Your task to perform on an android device: Clear the cart on amazon. Search for acer nitro on amazon, select the first entry, add it to the cart, then select checkout. Image 0: 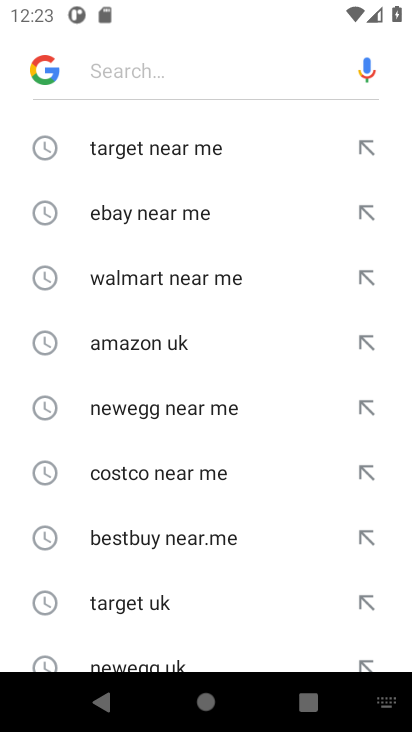
Step 0: press home button
Your task to perform on an android device: Clear the cart on amazon. Search for acer nitro on amazon, select the first entry, add it to the cart, then select checkout. Image 1: 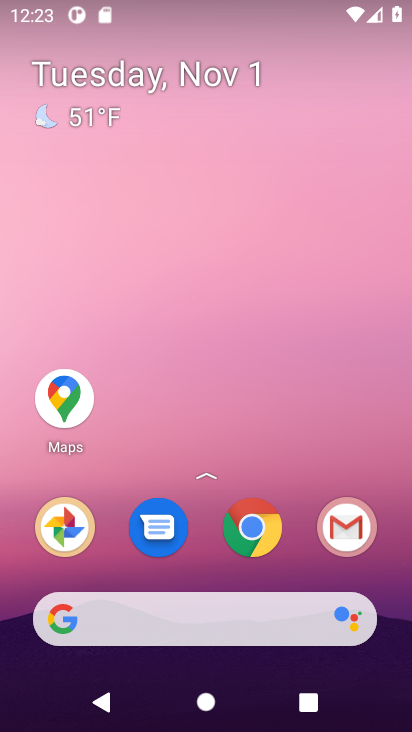
Step 1: click (250, 527)
Your task to perform on an android device: Clear the cart on amazon. Search for acer nitro on amazon, select the first entry, add it to the cart, then select checkout. Image 2: 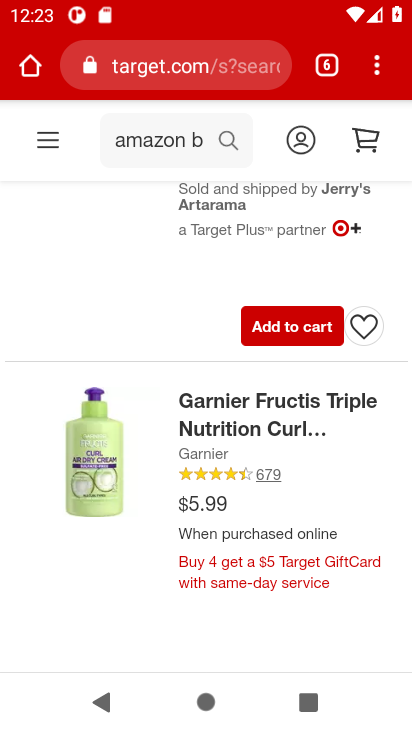
Step 2: click (180, 41)
Your task to perform on an android device: Clear the cart on amazon. Search for acer nitro on amazon, select the first entry, add it to the cart, then select checkout. Image 3: 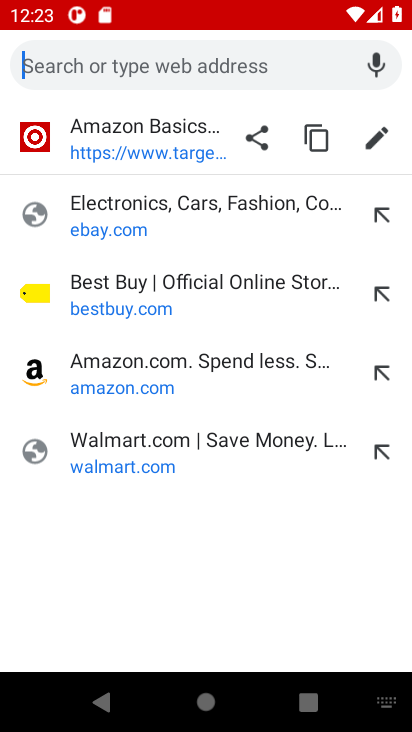
Step 3: type "amazon"
Your task to perform on an android device: Clear the cart on amazon. Search for acer nitro on amazon, select the first entry, add it to the cart, then select checkout. Image 4: 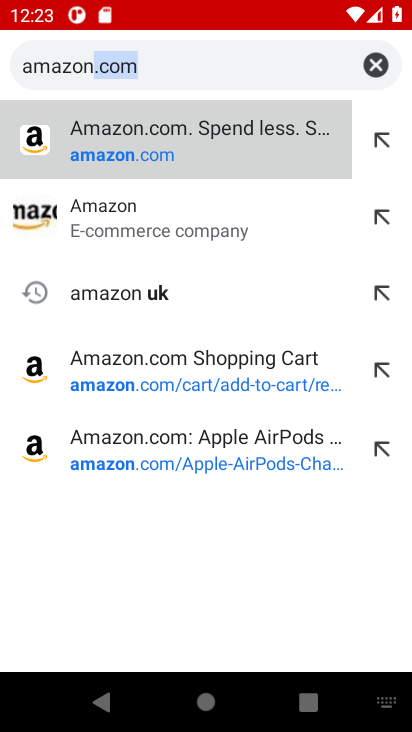
Step 4: click (127, 147)
Your task to perform on an android device: Clear the cart on amazon. Search for acer nitro on amazon, select the first entry, add it to the cart, then select checkout. Image 5: 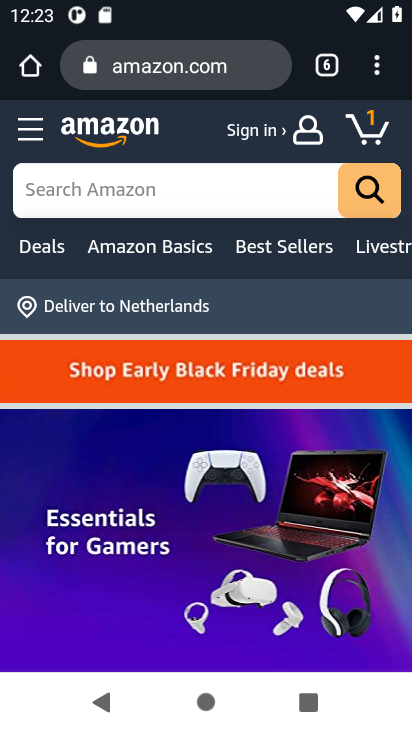
Step 5: click (363, 126)
Your task to perform on an android device: Clear the cart on amazon. Search for acer nitro on amazon, select the first entry, add it to the cart, then select checkout. Image 6: 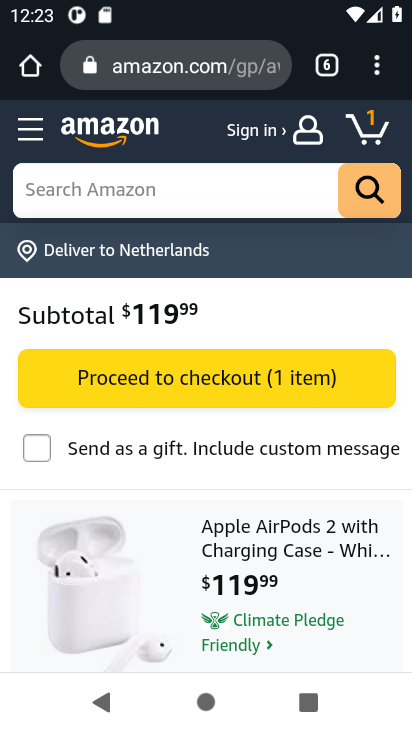
Step 6: drag from (123, 525) to (154, 230)
Your task to perform on an android device: Clear the cart on amazon. Search for acer nitro on amazon, select the first entry, add it to the cart, then select checkout. Image 7: 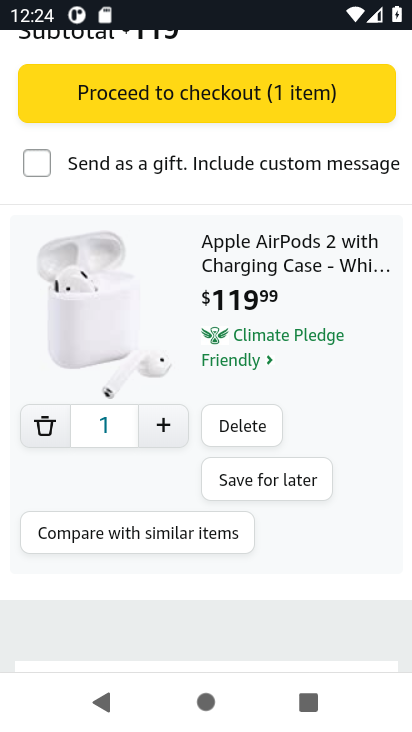
Step 7: click (42, 424)
Your task to perform on an android device: Clear the cart on amazon. Search for acer nitro on amazon, select the first entry, add it to the cart, then select checkout. Image 8: 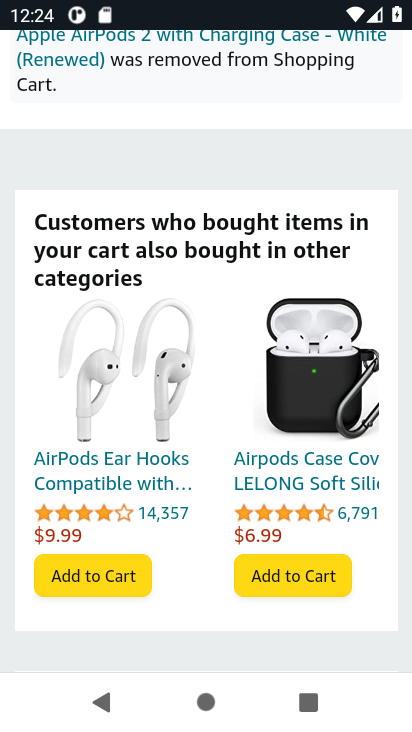
Step 8: drag from (217, 117) to (210, 308)
Your task to perform on an android device: Clear the cart on amazon. Search for acer nitro on amazon, select the first entry, add it to the cart, then select checkout. Image 9: 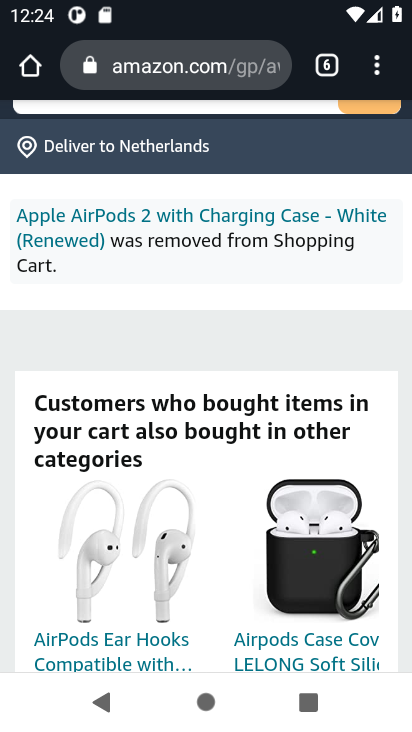
Step 9: drag from (198, 289) to (189, 455)
Your task to perform on an android device: Clear the cart on amazon. Search for acer nitro on amazon, select the first entry, add it to the cart, then select checkout. Image 10: 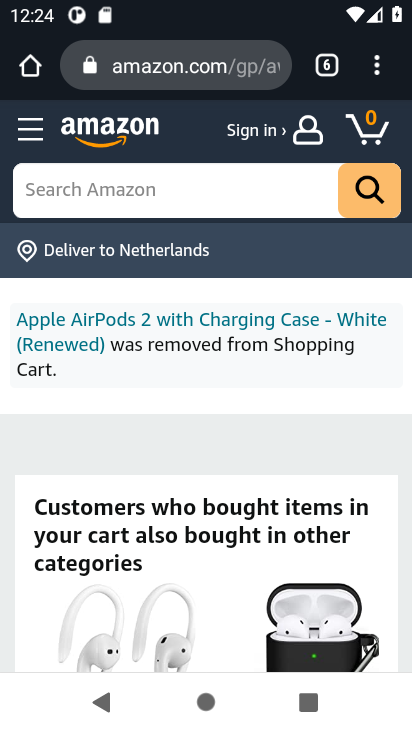
Step 10: click (111, 181)
Your task to perform on an android device: Clear the cart on amazon. Search for acer nitro on amazon, select the first entry, add it to the cart, then select checkout. Image 11: 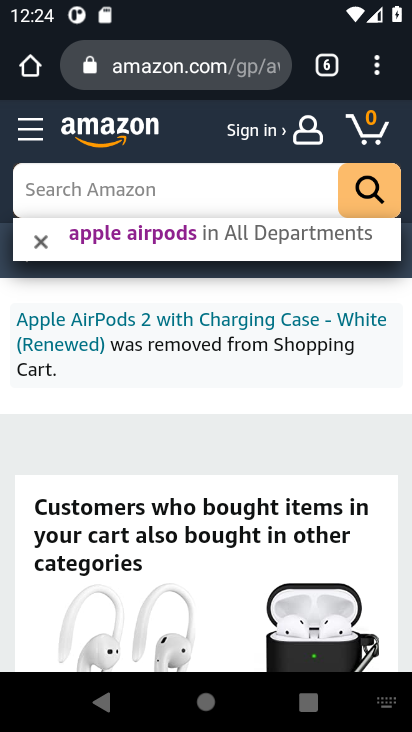
Step 11: type "acer nitro"
Your task to perform on an android device: Clear the cart on amazon. Search for acer nitro on amazon, select the first entry, add it to the cart, then select checkout. Image 12: 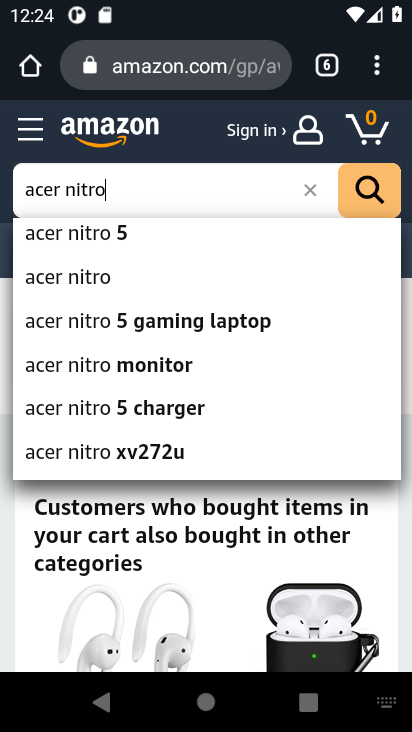
Step 12: click (78, 235)
Your task to perform on an android device: Clear the cart on amazon. Search for acer nitro on amazon, select the first entry, add it to the cart, then select checkout. Image 13: 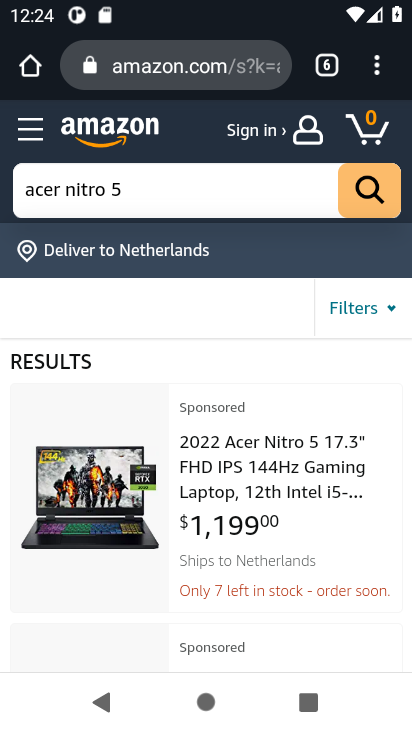
Step 13: click (238, 468)
Your task to perform on an android device: Clear the cart on amazon. Search for acer nitro on amazon, select the first entry, add it to the cart, then select checkout. Image 14: 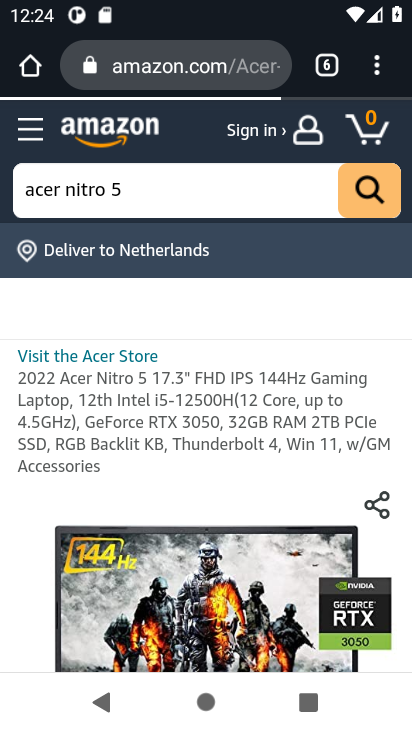
Step 14: drag from (247, 596) to (254, 158)
Your task to perform on an android device: Clear the cart on amazon. Search for acer nitro on amazon, select the first entry, add it to the cart, then select checkout. Image 15: 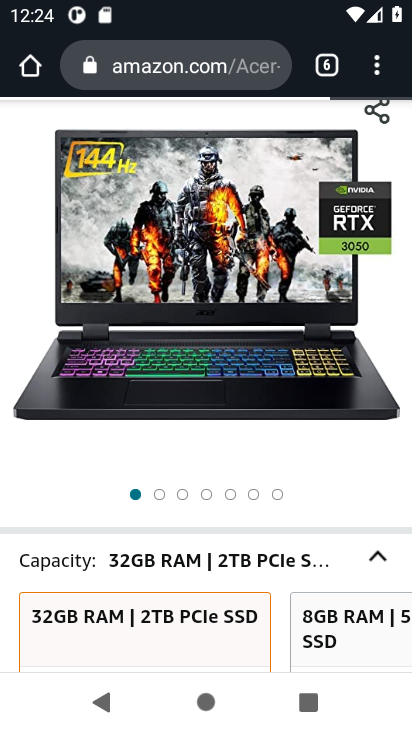
Step 15: drag from (256, 533) to (234, 173)
Your task to perform on an android device: Clear the cart on amazon. Search for acer nitro on amazon, select the first entry, add it to the cart, then select checkout. Image 16: 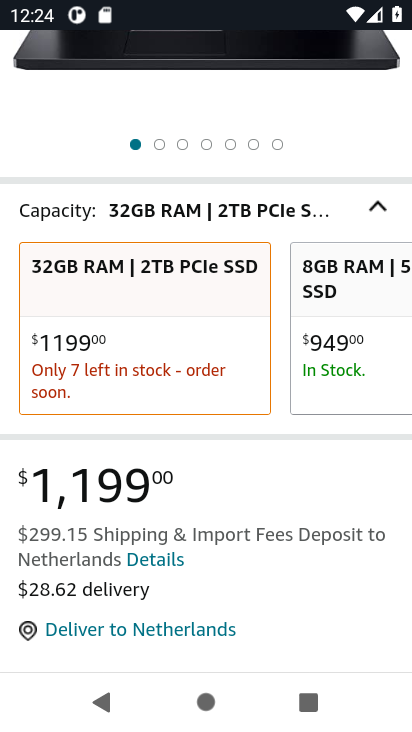
Step 16: drag from (237, 629) to (243, 269)
Your task to perform on an android device: Clear the cart on amazon. Search for acer nitro on amazon, select the first entry, add it to the cart, then select checkout. Image 17: 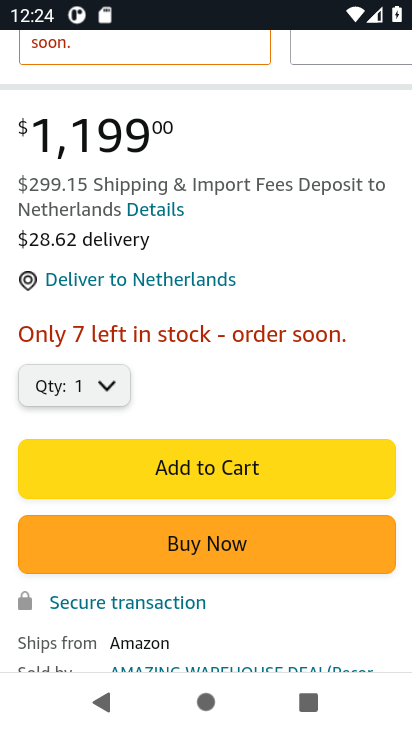
Step 17: click (213, 472)
Your task to perform on an android device: Clear the cart on amazon. Search for acer nitro on amazon, select the first entry, add it to the cart, then select checkout. Image 18: 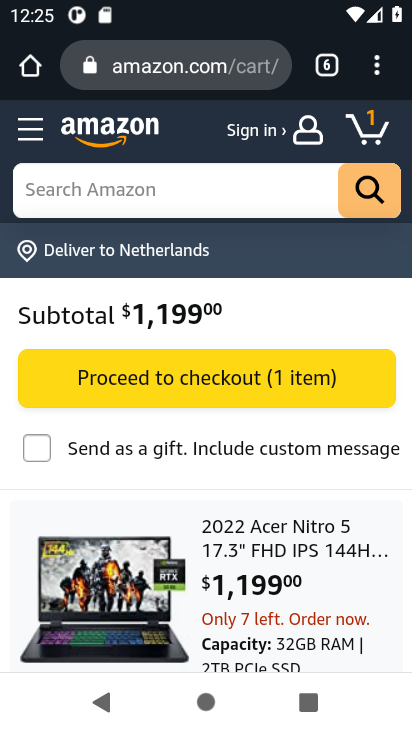
Step 18: click (184, 370)
Your task to perform on an android device: Clear the cart on amazon. Search for acer nitro on amazon, select the first entry, add it to the cart, then select checkout. Image 19: 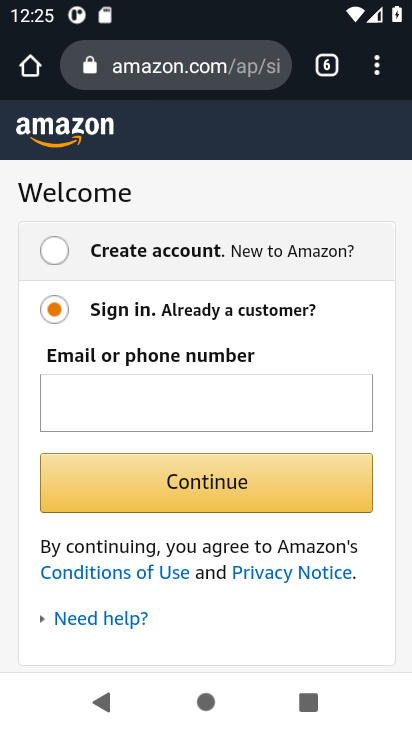
Step 19: task complete